Your task to perform on an android device: open a new tab in the chrome app Image 0: 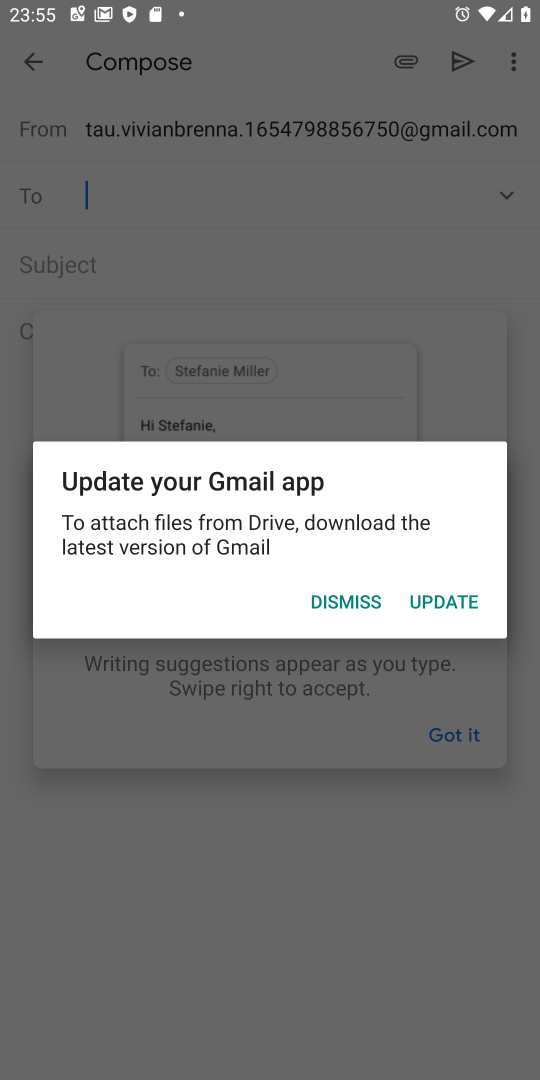
Step 0: press home button
Your task to perform on an android device: open a new tab in the chrome app Image 1: 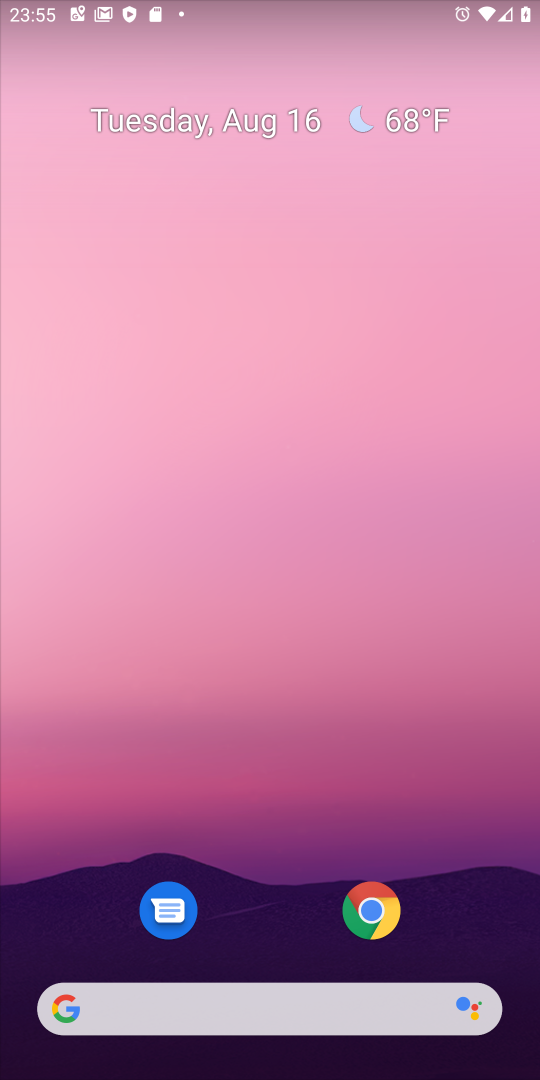
Step 1: drag from (272, 845) to (330, 113)
Your task to perform on an android device: open a new tab in the chrome app Image 2: 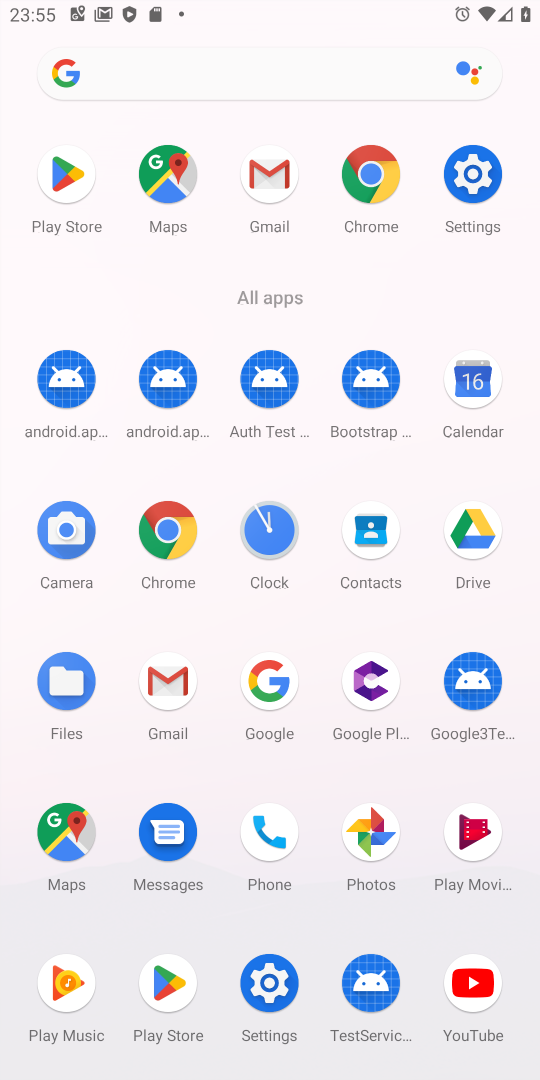
Step 2: click (167, 526)
Your task to perform on an android device: open a new tab in the chrome app Image 3: 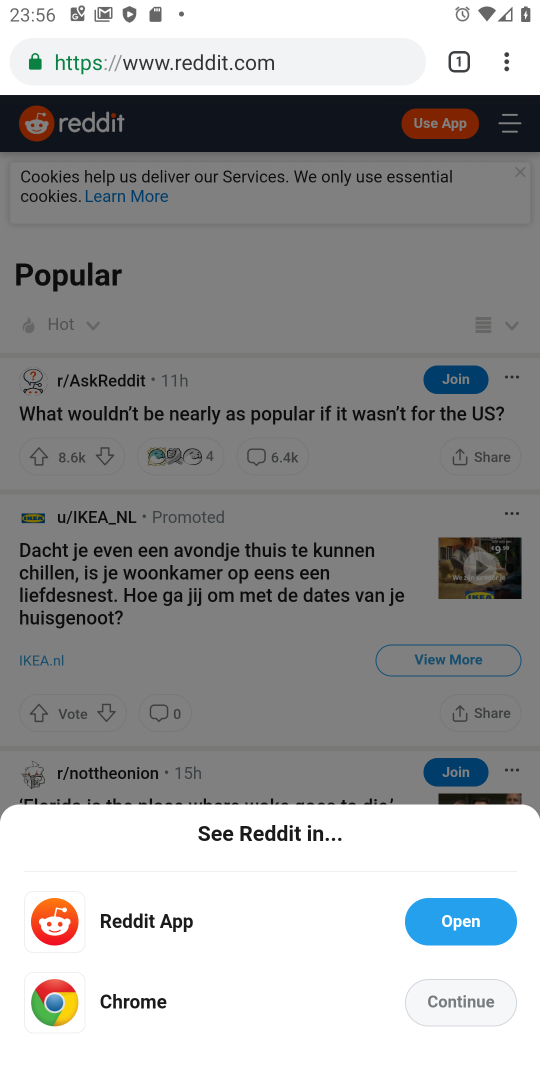
Step 3: task complete